Your task to perform on an android device: open chrome and create a bookmark for the current page Image 0: 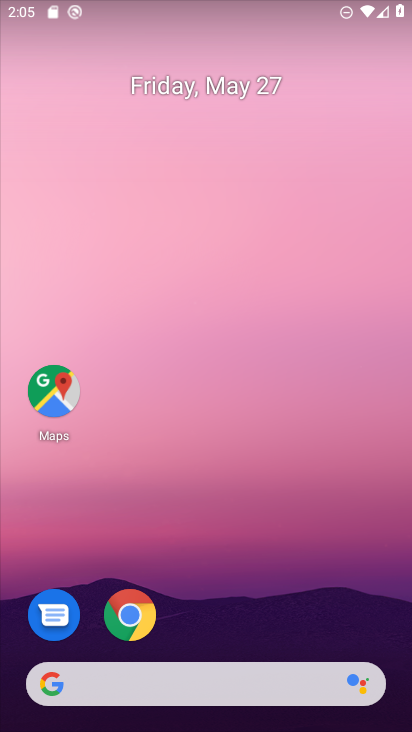
Step 0: drag from (224, 581) to (296, 9)
Your task to perform on an android device: open chrome and create a bookmark for the current page Image 1: 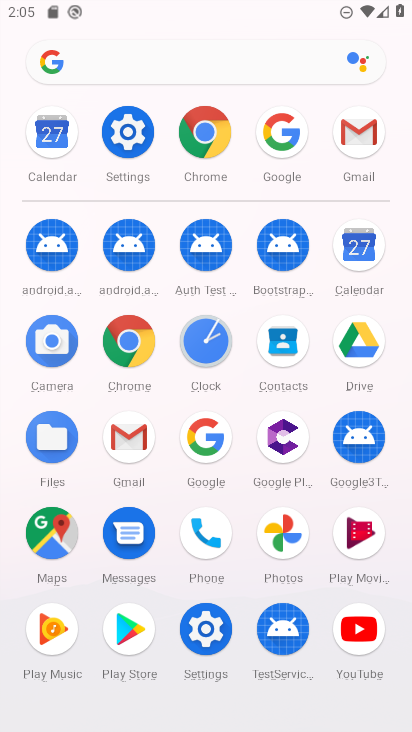
Step 1: click (136, 352)
Your task to perform on an android device: open chrome and create a bookmark for the current page Image 2: 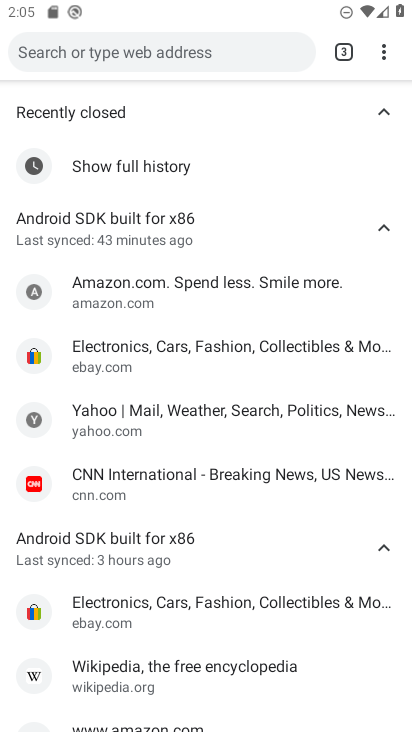
Step 2: click (383, 61)
Your task to perform on an android device: open chrome and create a bookmark for the current page Image 3: 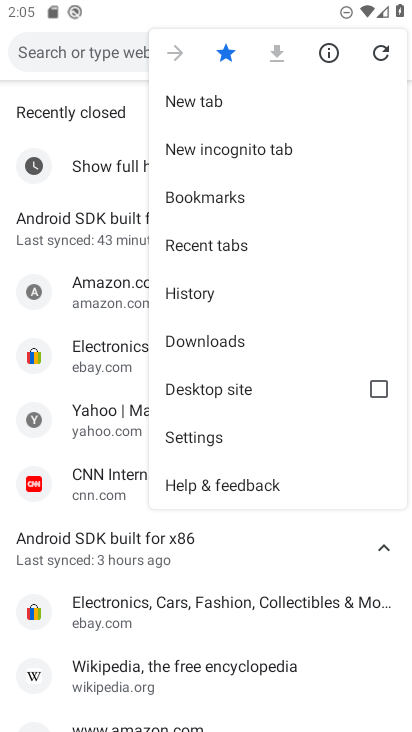
Step 3: click (123, 128)
Your task to perform on an android device: open chrome and create a bookmark for the current page Image 4: 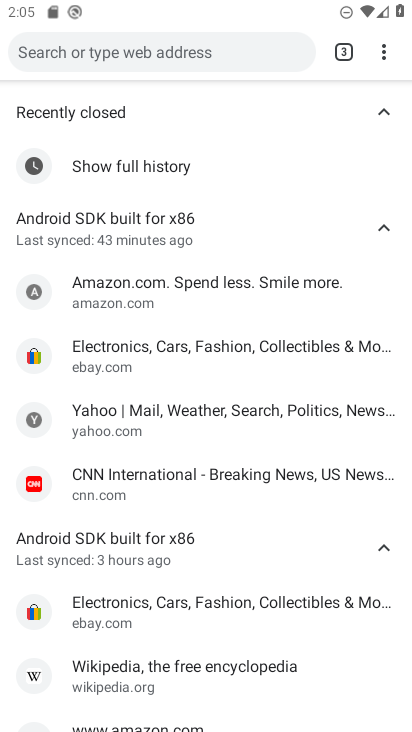
Step 4: click (346, 47)
Your task to perform on an android device: open chrome and create a bookmark for the current page Image 5: 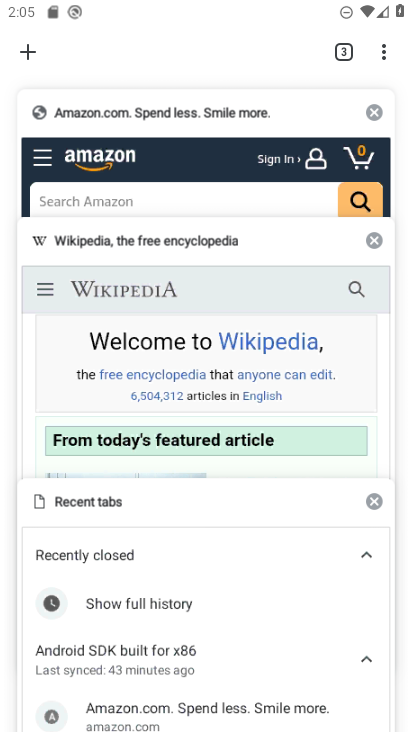
Step 5: press back button
Your task to perform on an android device: open chrome and create a bookmark for the current page Image 6: 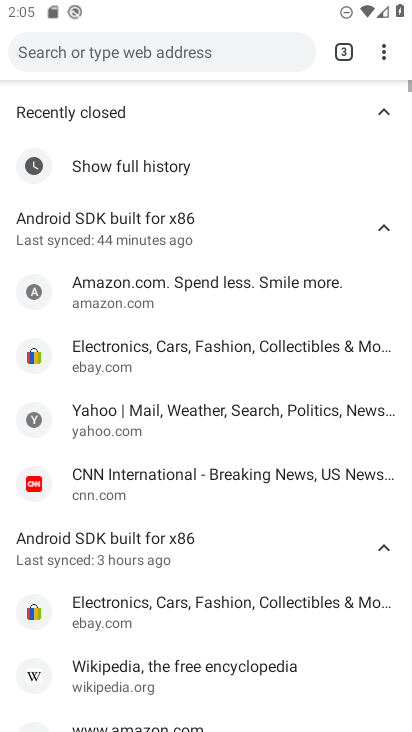
Step 6: press back button
Your task to perform on an android device: open chrome and create a bookmark for the current page Image 7: 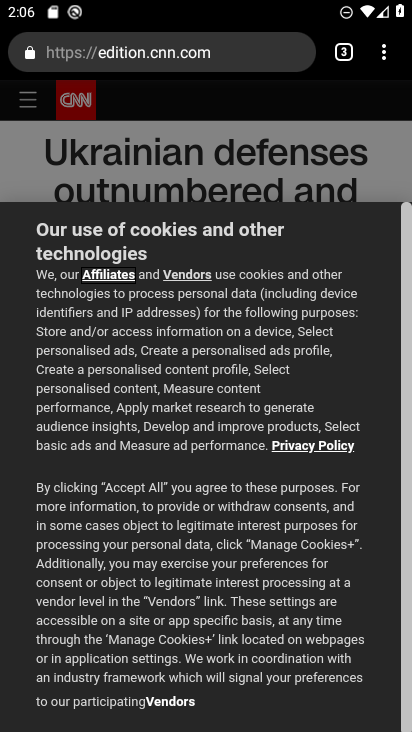
Step 7: click (382, 58)
Your task to perform on an android device: open chrome and create a bookmark for the current page Image 8: 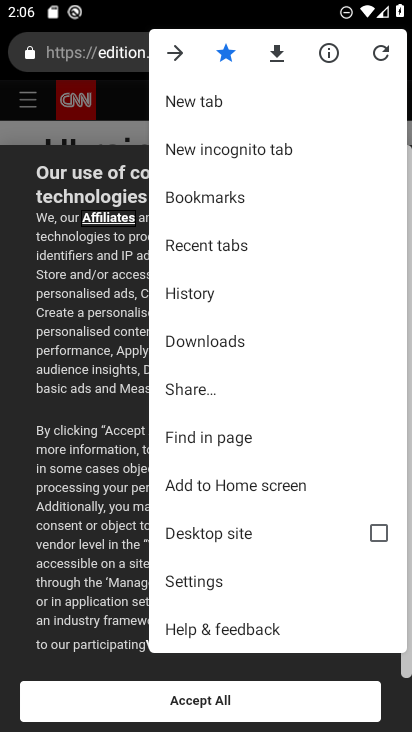
Step 8: task complete